Your task to perform on an android device: What's on my calendar today? Image 0: 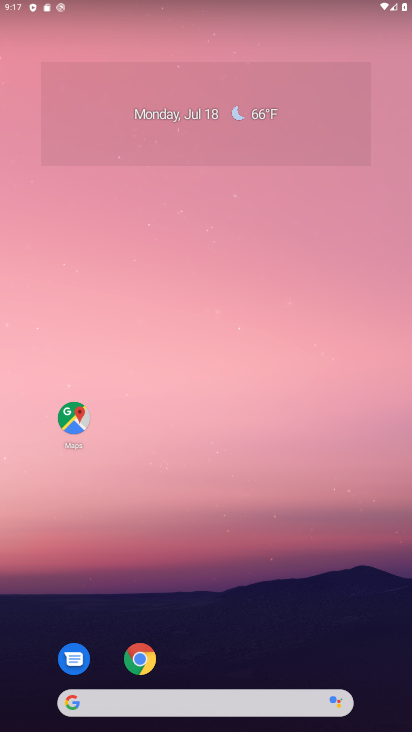
Step 0: drag from (249, 644) to (240, 279)
Your task to perform on an android device: What's on my calendar today? Image 1: 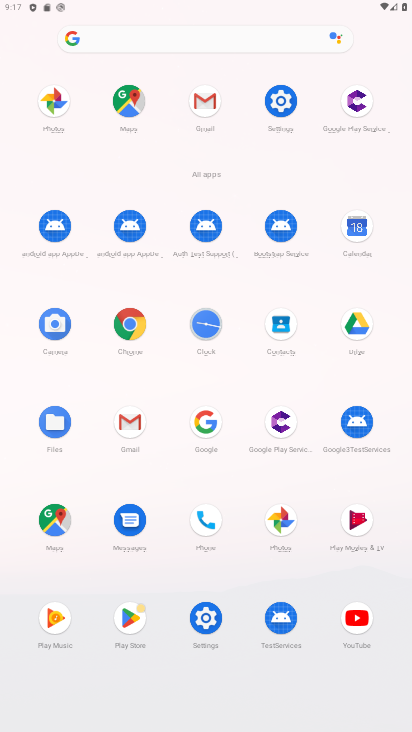
Step 1: click (355, 228)
Your task to perform on an android device: What's on my calendar today? Image 2: 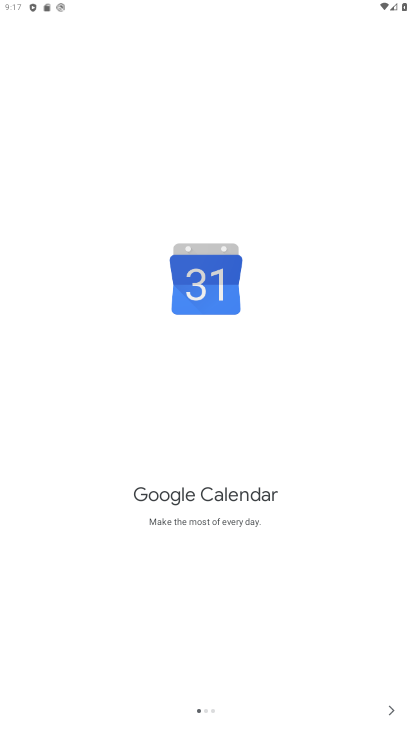
Step 2: click (388, 713)
Your task to perform on an android device: What's on my calendar today? Image 3: 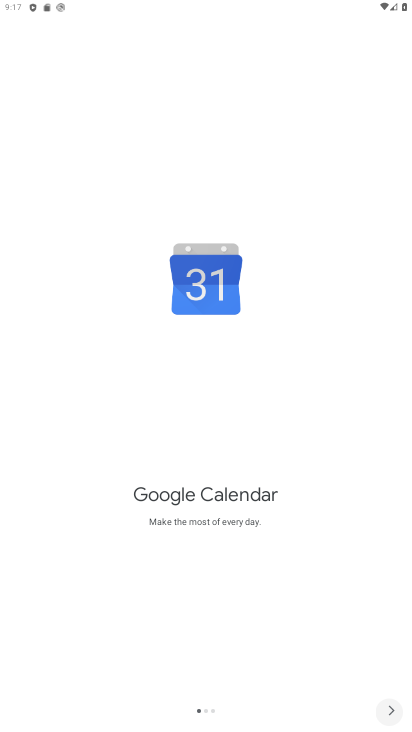
Step 3: click (388, 713)
Your task to perform on an android device: What's on my calendar today? Image 4: 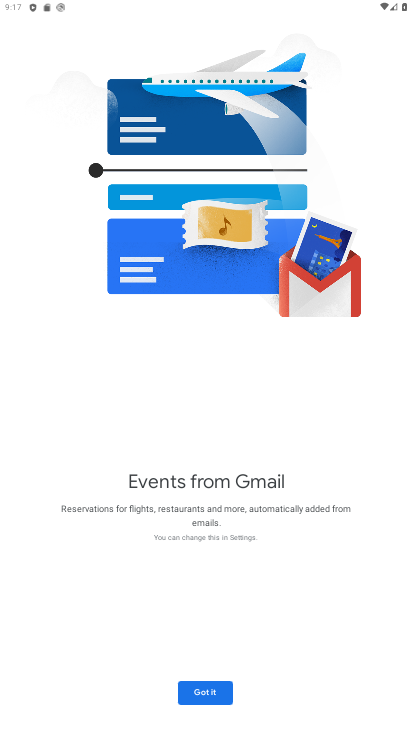
Step 4: click (213, 697)
Your task to perform on an android device: What's on my calendar today? Image 5: 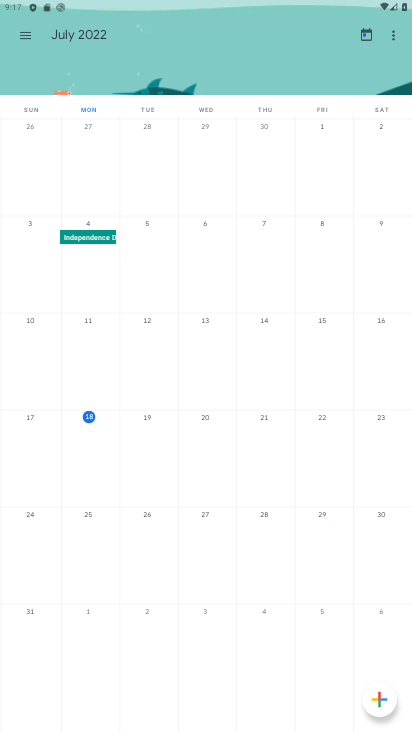
Step 5: task complete